Your task to perform on an android device: show emergency info Image 0: 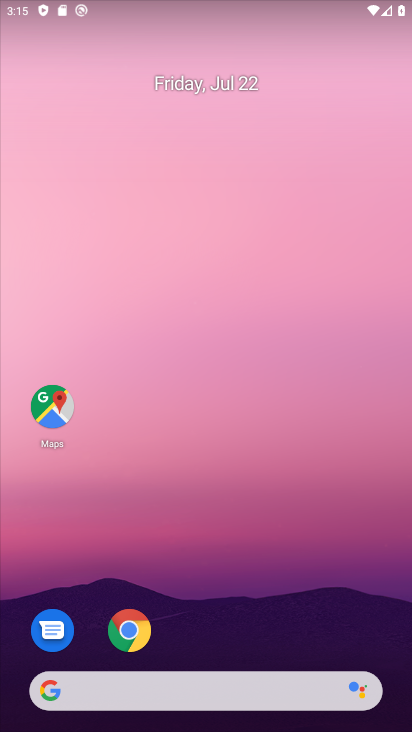
Step 0: drag from (220, 617) to (240, 42)
Your task to perform on an android device: show emergency info Image 1: 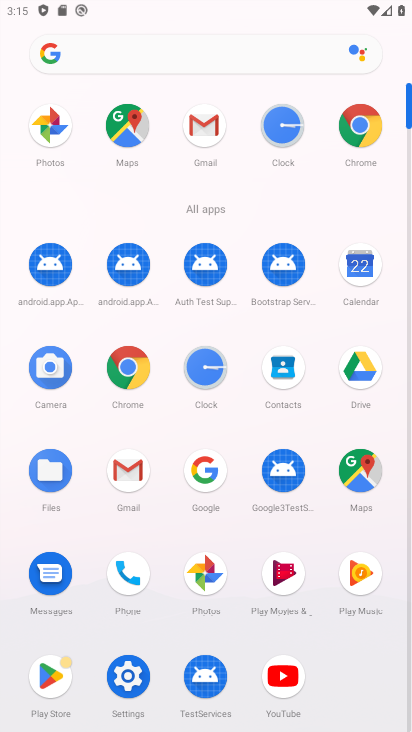
Step 1: click (121, 682)
Your task to perform on an android device: show emergency info Image 2: 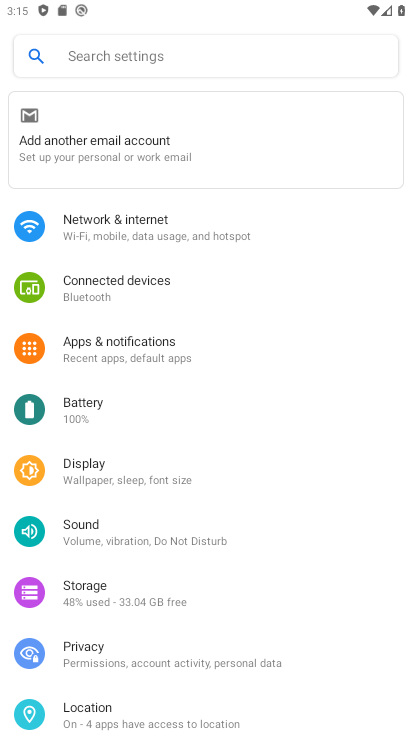
Step 2: drag from (115, 113) to (148, 3)
Your task to perform on an android device: show emergency info Image 3: 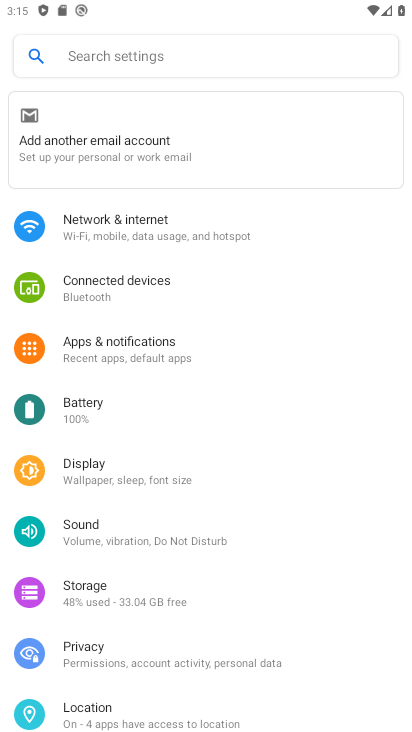
Step 3: drag from (171, 652) to (183, 122)
Your task to perform on an android device: show emergency info Image 4: 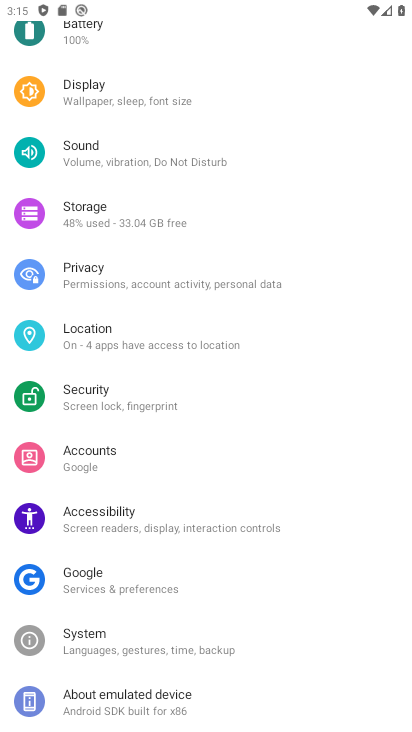
Step 4: drag from (157, 642) to (197, 0)
Your task to perform on an android device: show emergency info Image 5: 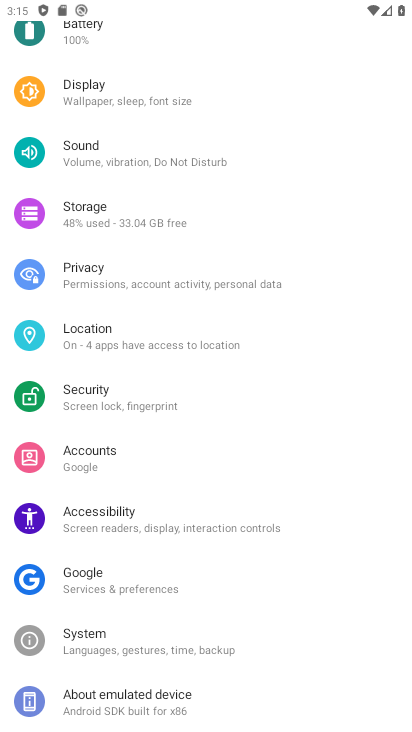
Step 5: click (118, 701)
Your task to perform on an android device: show emergency info Image 6: 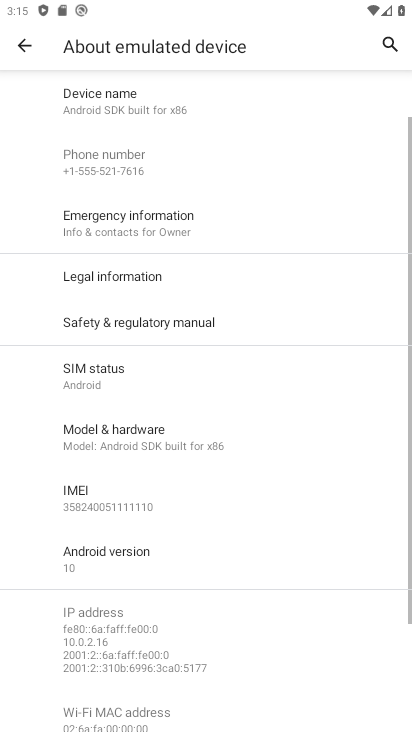
Step 6: click (162, 206)
Your task to perform on an android device: show emergency info Image 7: 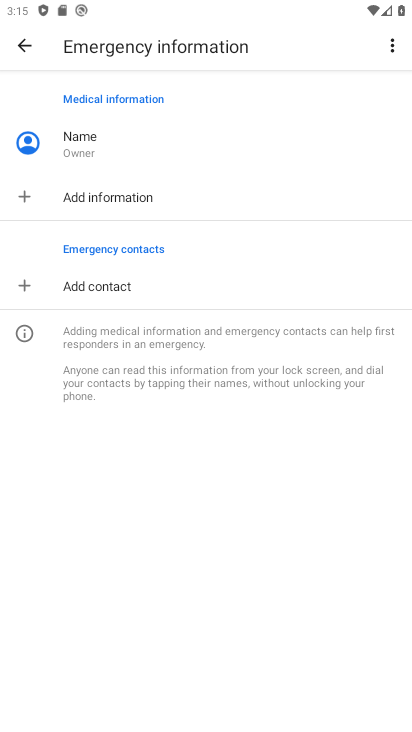
Step 7: task complete